Your task to perform on an android device: open a new tab in the chrome app Image 0: 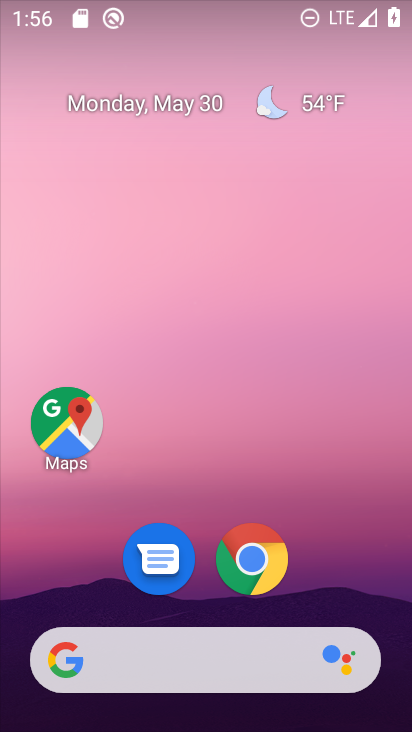
Step 0: click (248, 560)
Your task to perform on an android device: open a new tab in the chrome app Image 1: 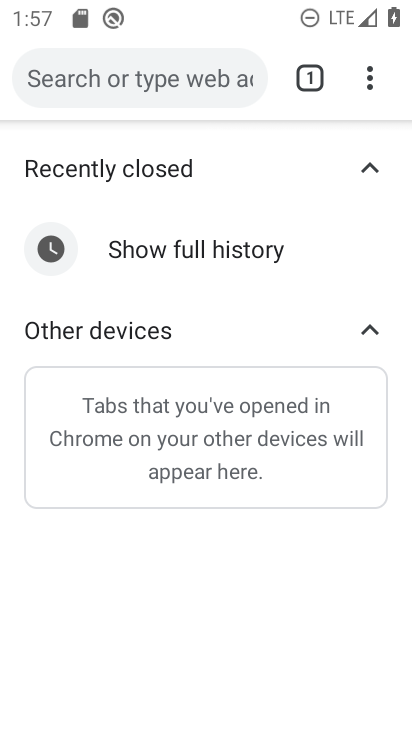
Step 1: click (349, 89)
Your task to perform on an android device: open a new tab in the chrome app Image 2: 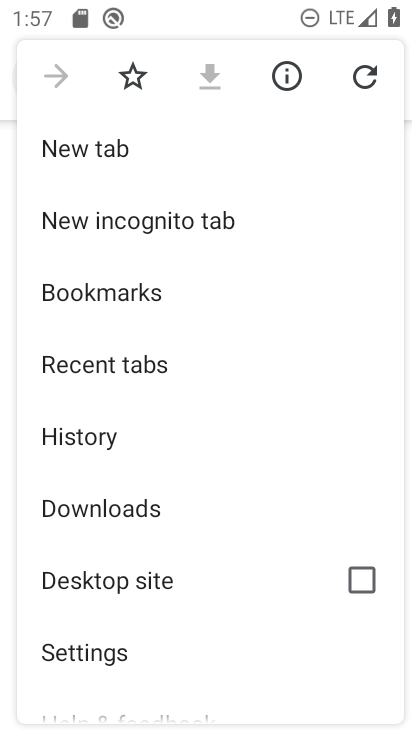
Step 2: click (144, 151)
Your task to perform on an android device: open a new tab in the chrome app Image 3: 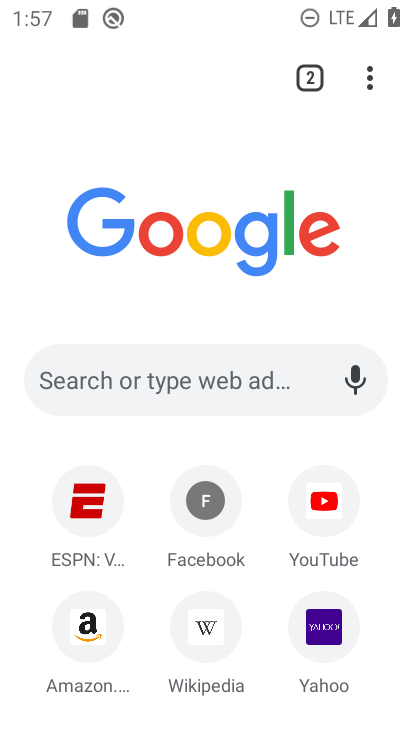
Step 3: task complete